Your task to perform on an android device: Go to network settings Image 0: 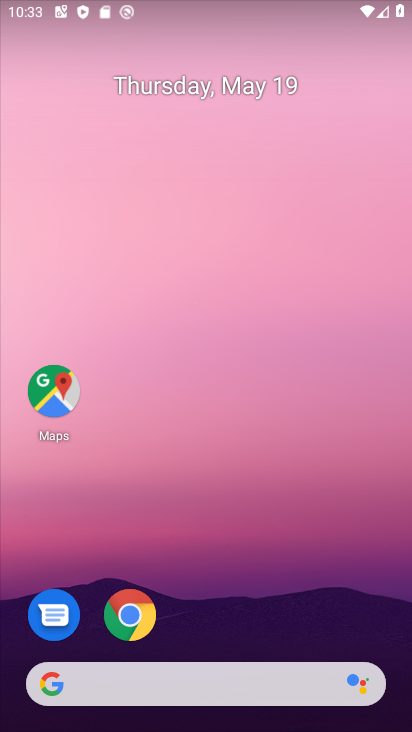
Step 0: drag from (348, 646) to (358, 2)
Your task to perform on an android device: Go to network settings Image 1: 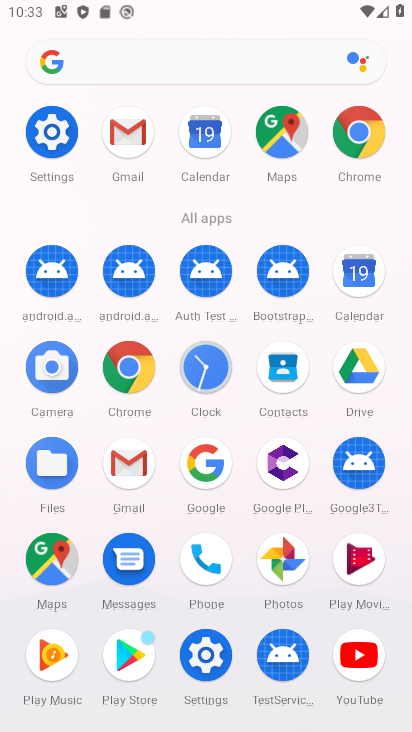
Step 1: click (57, 139)
Your task to perform on an android device: Go to network settings Image 2: 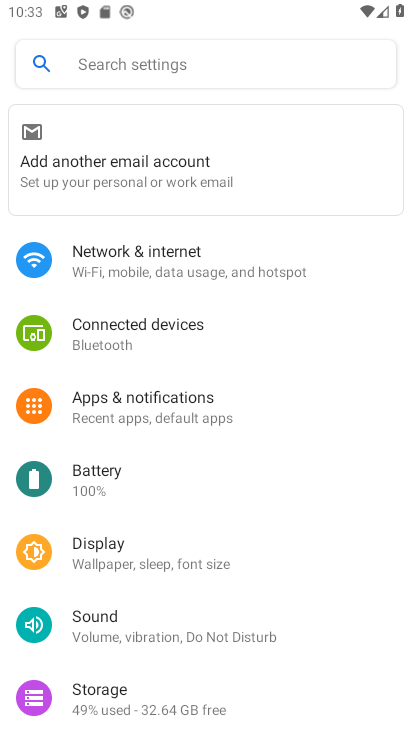
Step 2: click (107, 264)
Your task to perform on an android device: Go to network settings Image 3: 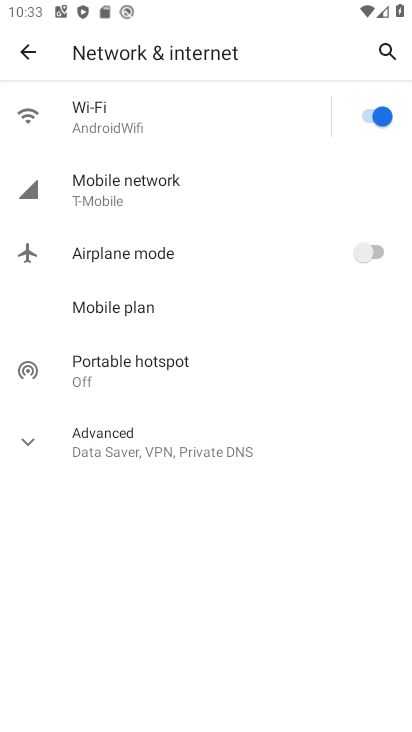
Step 3: click (104, 197)
Your task to perform on an android device: Go to network settings Image 4: 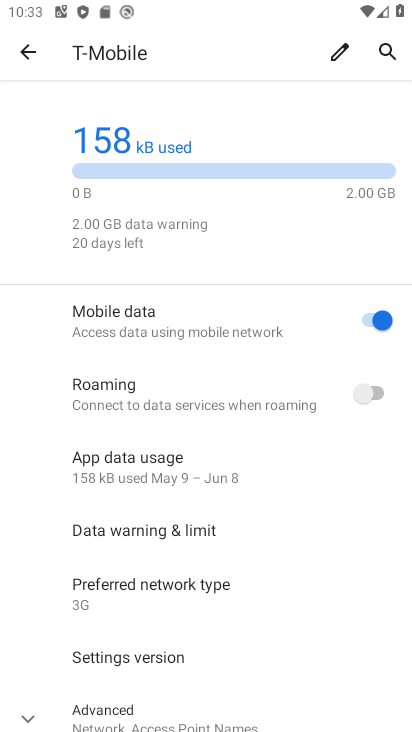
Step 4: drag from (226, 603) to (225, 172)
Your task to perform on an android device: Go to network settings Image 5: 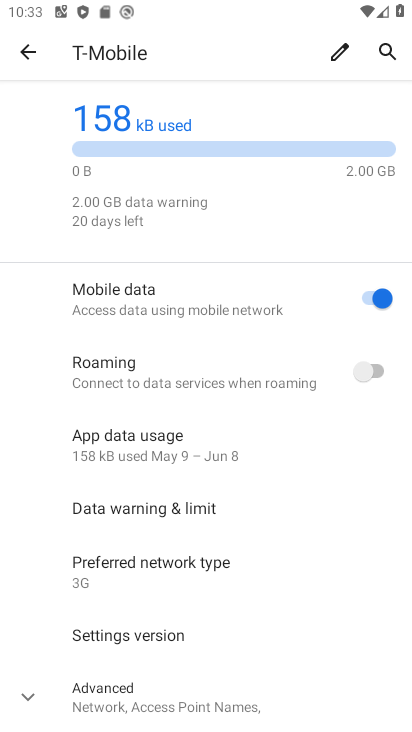
Step 5: click (24, 703)
Your task to perform on an android device: Go to network settings Image 6: 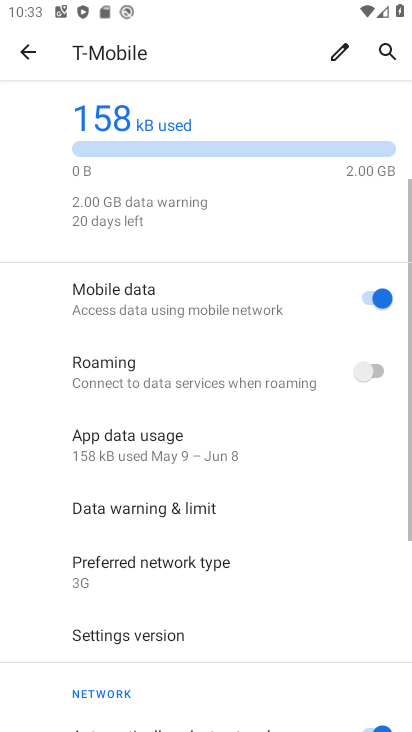
Step 6: task complete